Your task to perform on an android device: turn off notifications in google photos Image 0: 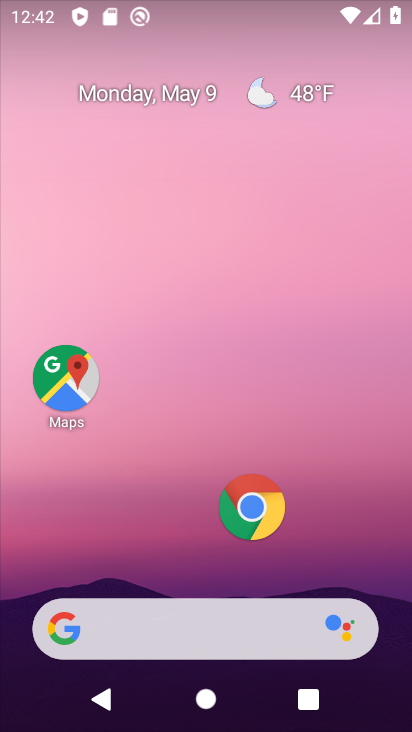
Step 0: drag from (173, 546) to (179, 55)
Your task to perform on an android device: turn off notifications in google photos Image 1: 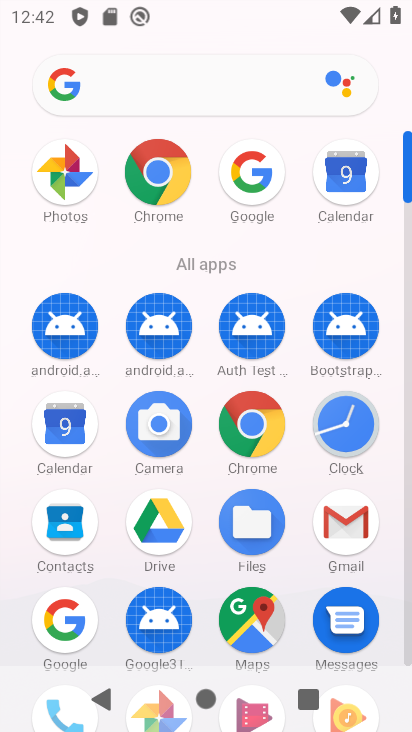
Step 1: click (64, 174)
Your task to perform on an android device: turn off notifications in google photos Image 2: 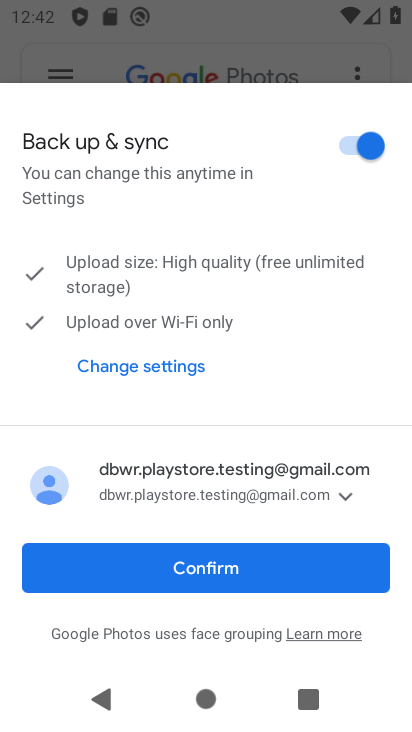
Step 2: click (192, 564)
Your task to perform on an android device: turn off notifications in google photos Image 3: 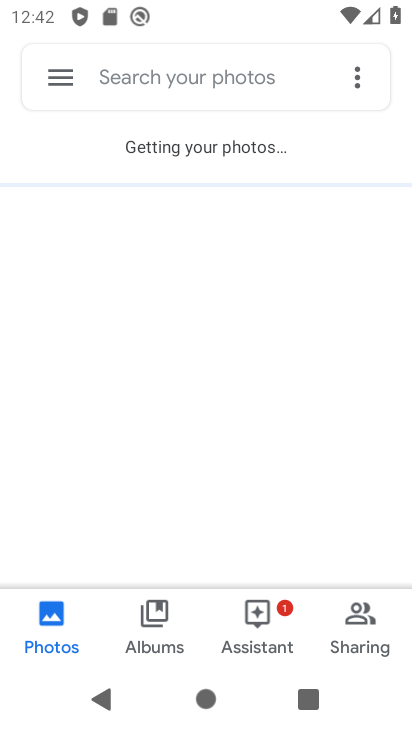
Step 3: click (66, 78)
Your task to perform on an android device: turn off notifications in google photos Image 4: 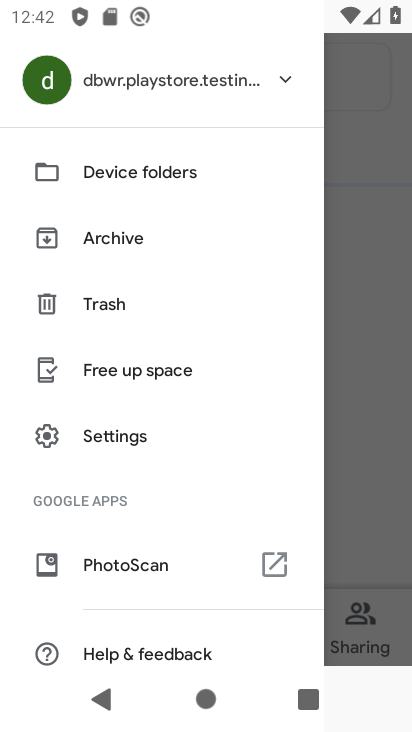
Step 4: drag from (134, 522) to (136, 257)
Your task to perform on an android device: turn off notifications in google photos Image 5: 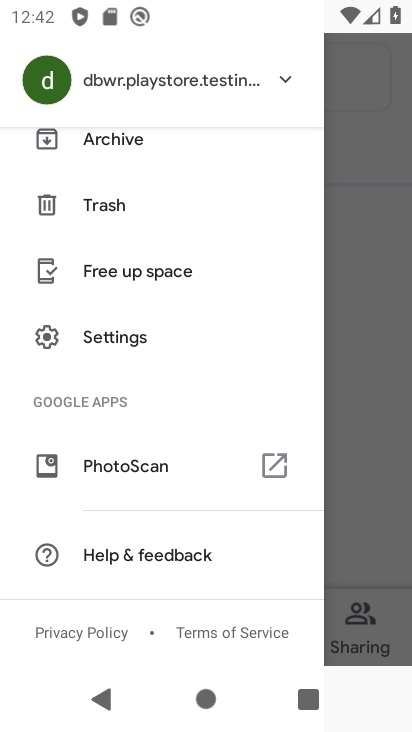
Step 5: click (86, 336)
Your task to perform on an android device: turn off notifications in google photos Image 6: 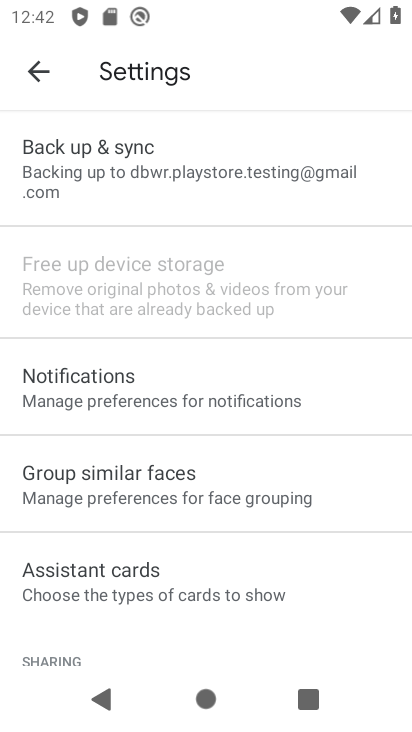
Step 6: click (129, 395)
Your task to perform on an android device: turn off notifications in google photos Image 7: 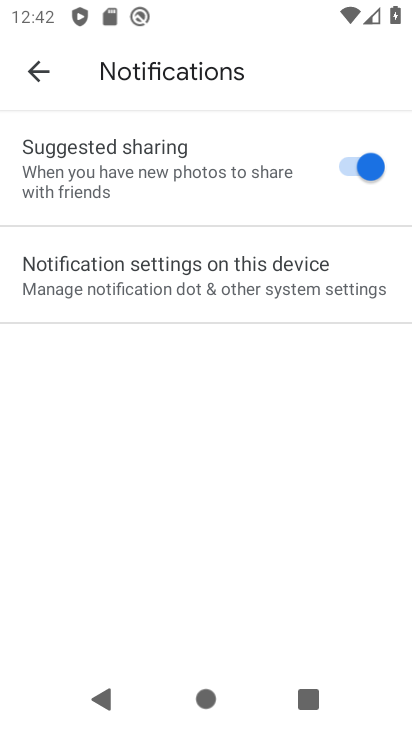
Step 7: click (179, 289)
Your task to perform on an android device: turn off notifications in google photos Image 8: 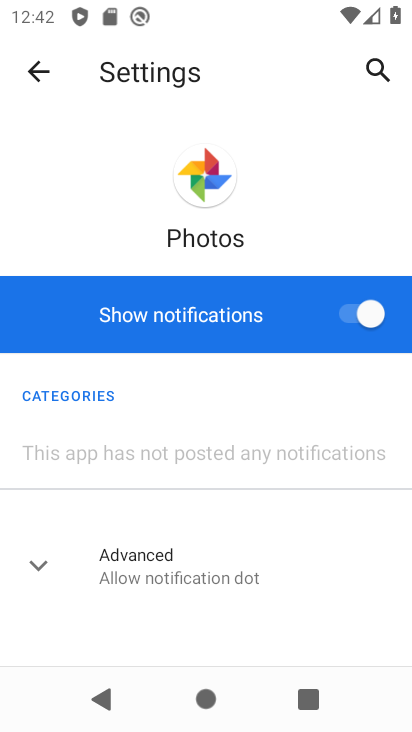
Step 8: click (375, 308)
Your task to perform on an android device: turn off notifications in google photos Image 9: 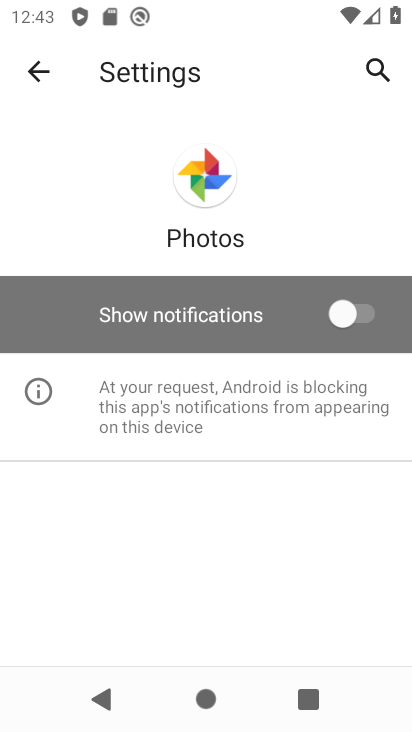
Step 9: task complete